Your task to perform on an android device: Search for the new lego star wars 2021 on Target Image 0: 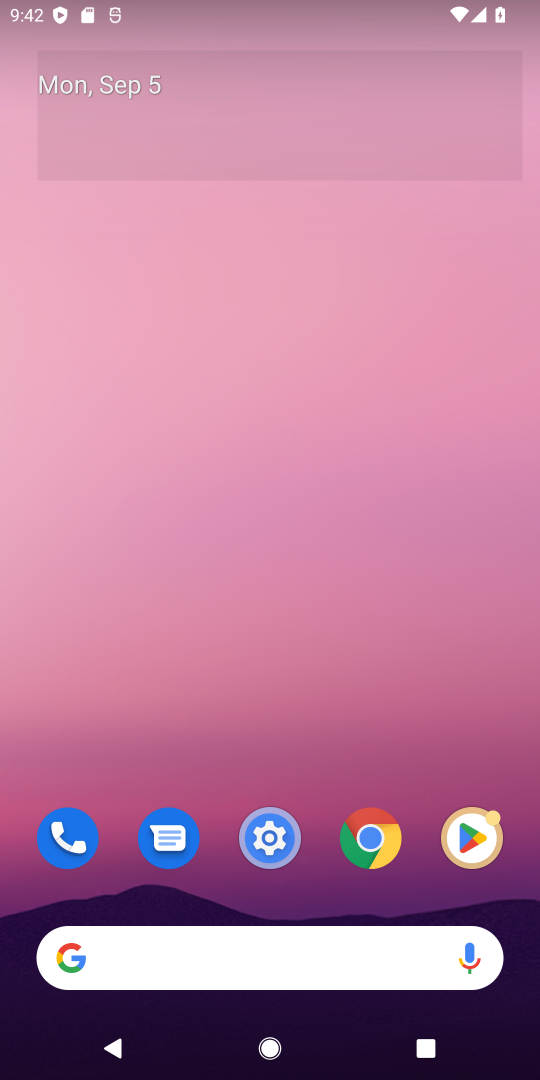
Step 0: click (287, 946)
Your task to perform on an android device: Search for the new lego star wars 2021 on Target Image 1: 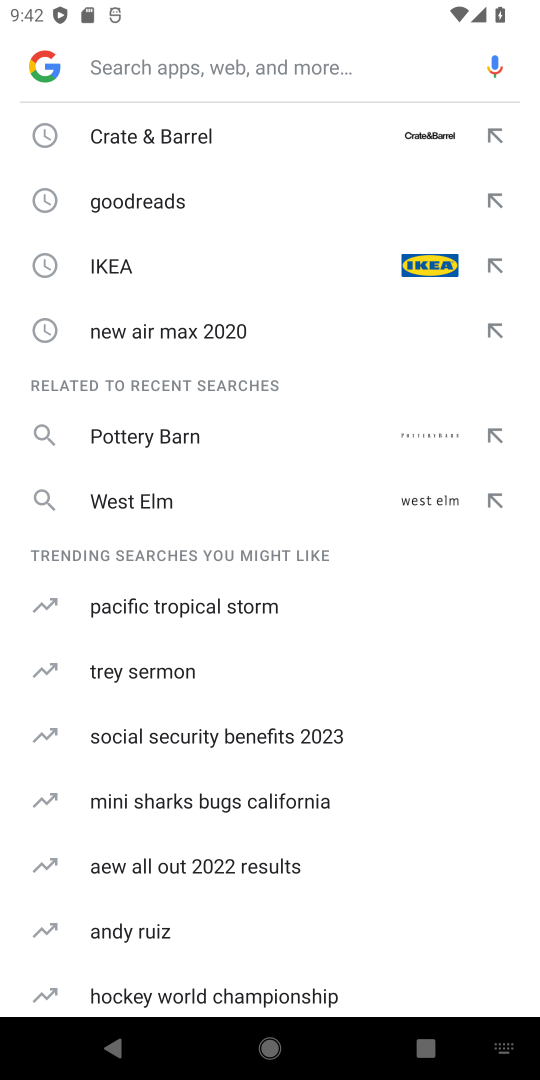
Step 1: type "Target"
Your task to perform on an android device: Search for the new lego star wars 2021 on Target Image 2: 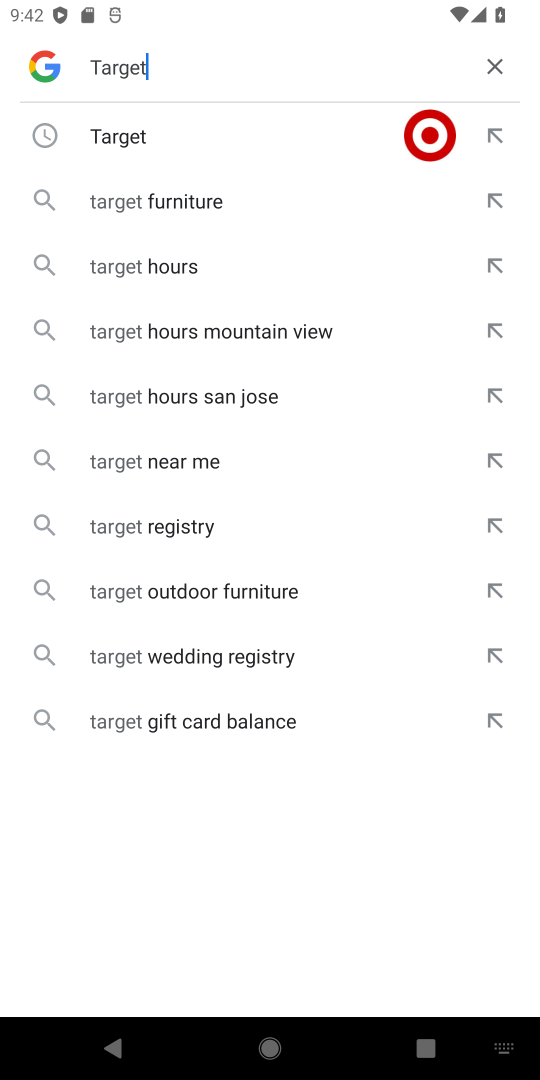
Step 2: click (228, 144)
Your task to perform on an android device: Search for the new lego star wars 2021 on Target Image 3: 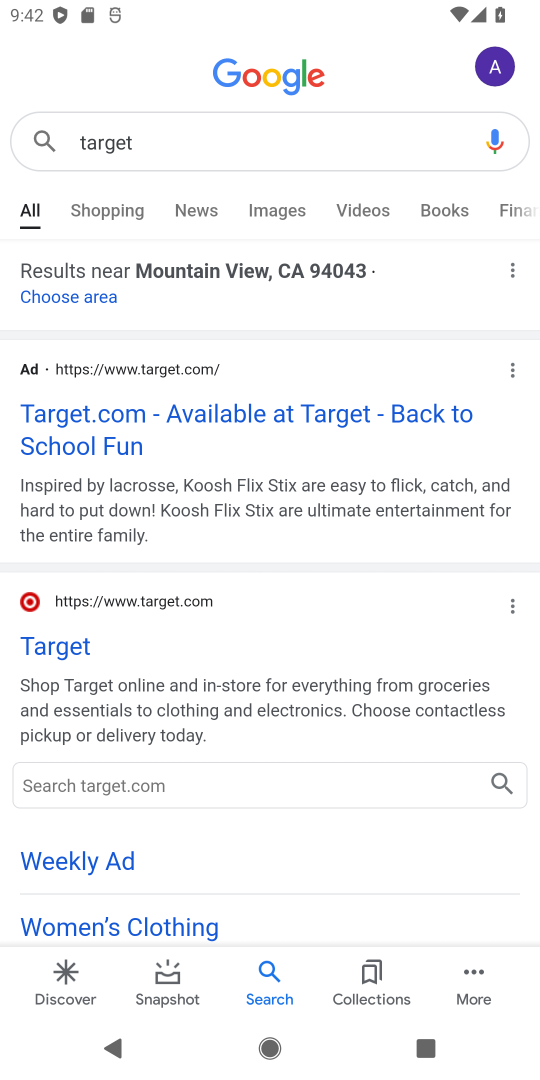
Step 3: click (60, 633)
Your task to perform on an android device: Search for the new lego star wars 2021 on Target Image 4: 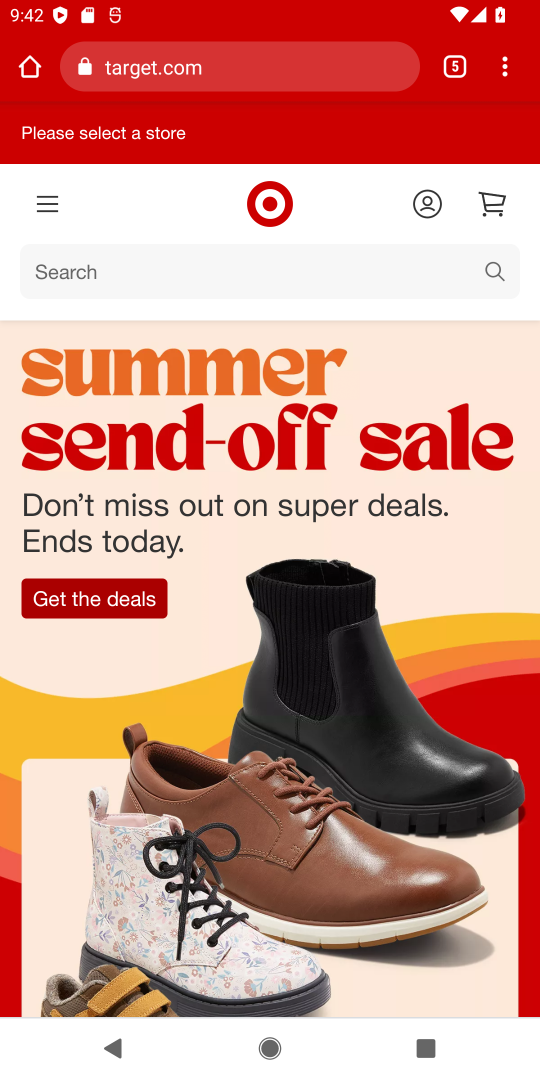
Step 4: click (341, 264)
Your task to perform on an android device: Search for the new lego star wars 2021 on Target Image 5: 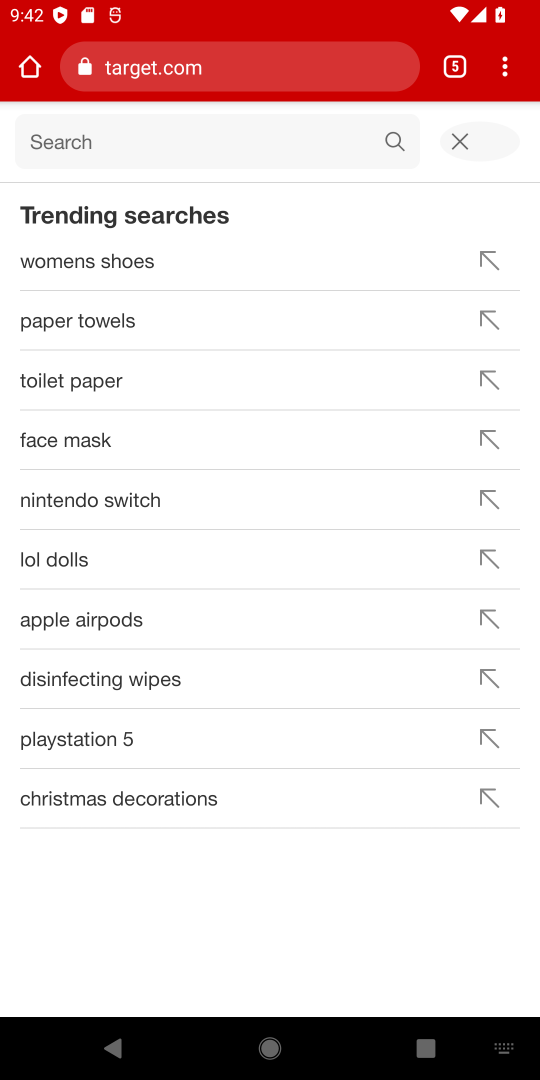
Step 5: type "new lego star wars 2021"
Your task to perform on an android device: Search for the new lego star wars 2021 on Target Image 6: 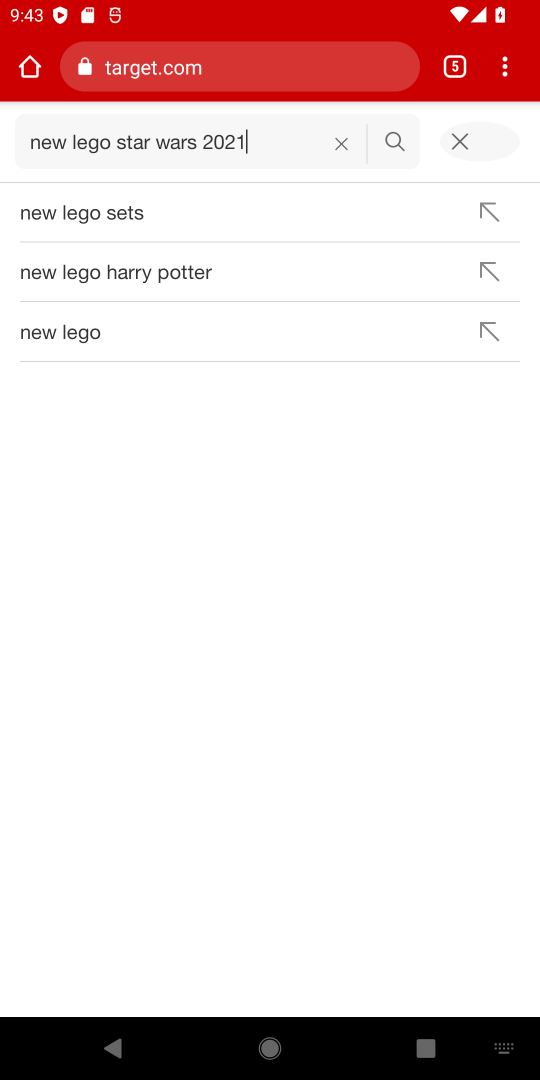
Step 6: click (403, 151)
Your task to perform on an android device: Search for the new lego star wars 2021 on Target Image 7: 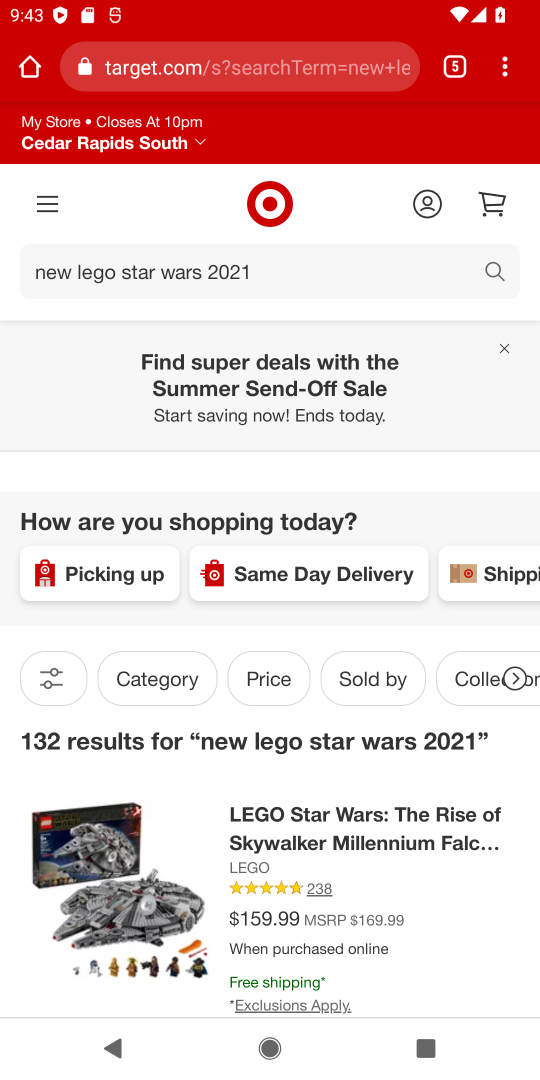
Step 7: task complete